Your task to perform on an android device: Open CNN.com Image 0: 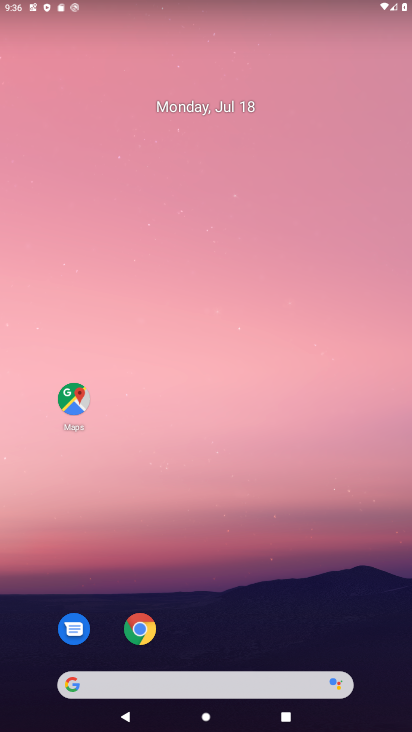
Step 0: drag from (254, 633) to (191, 34)
Your task to perform on an android device: Open CNN.com Image 1: 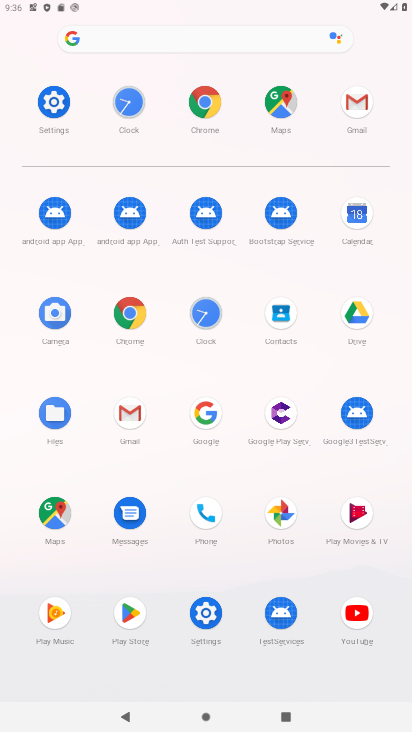
Step 1: click (133, 318)
Your task to perform on an android device: Open CNN.com Image 2: 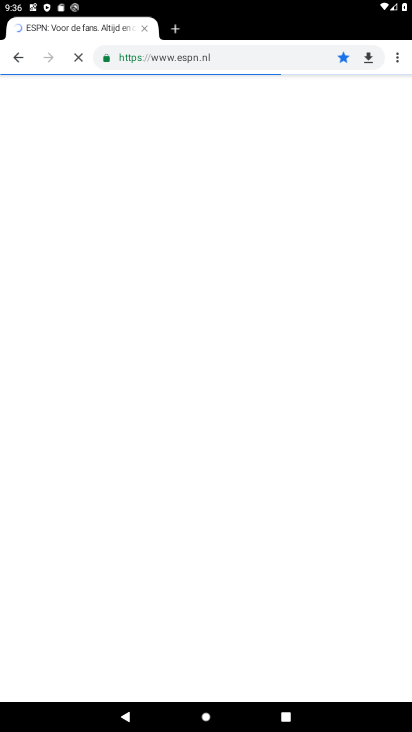
Step 2: click (189, 55)
Your task to perform on an android device: Open CNN.com Image 3: 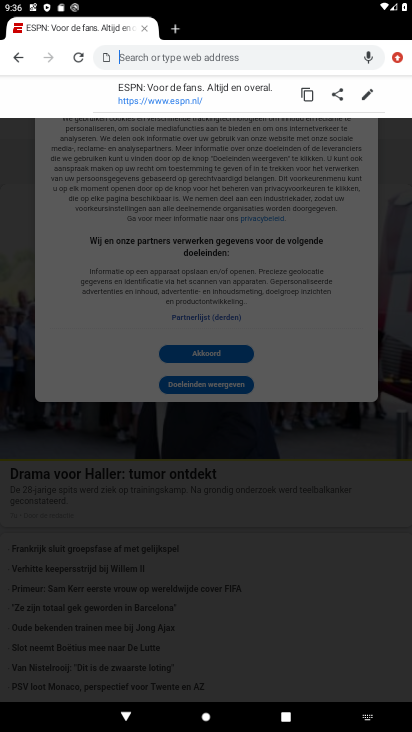
Step 3: type "cnn.com"
Your task to perform on an android device: Open CNN.com Image 4: 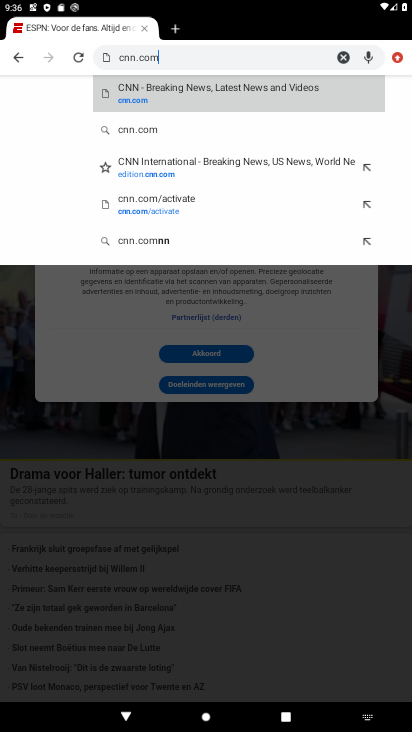
Step 4: click (130, 96)
Your task to perform on an android device: Open CNN.com Image 5: 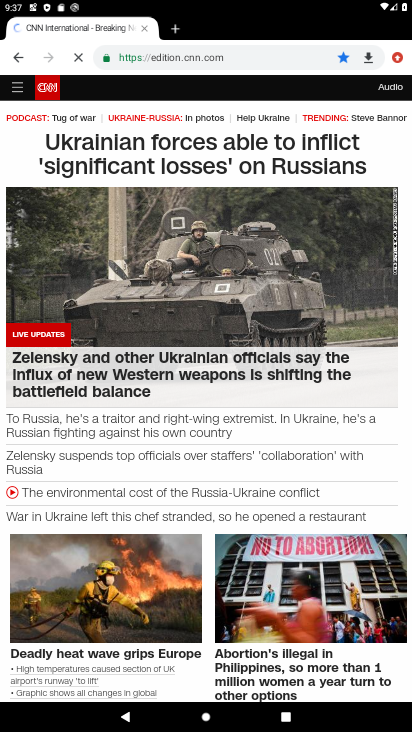
Step 5: task complete